Your task to perform on an android device: turn off wifi Image 0: 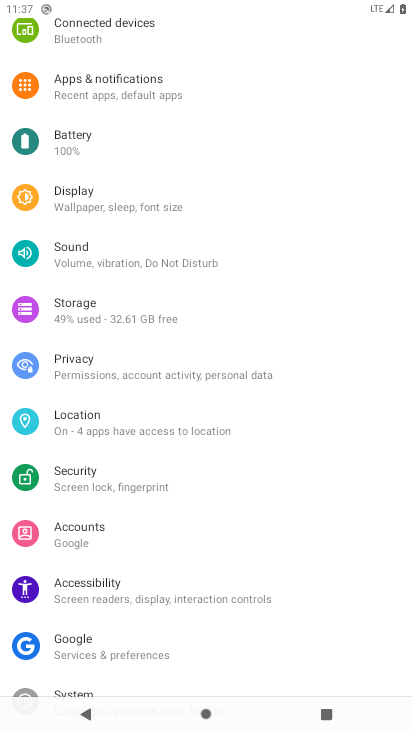
Step 0: press home button
Your task to perform on an android device: turn off wifi Image 1: 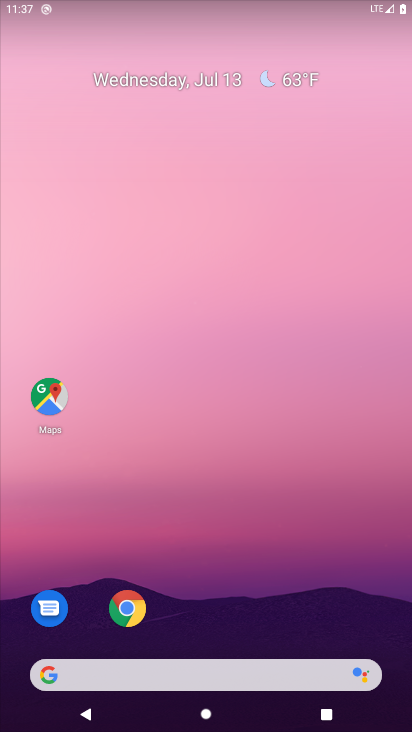
Step 1: task complete